Your task to perform on an android device: Open Maps and search for coffee Image 0: 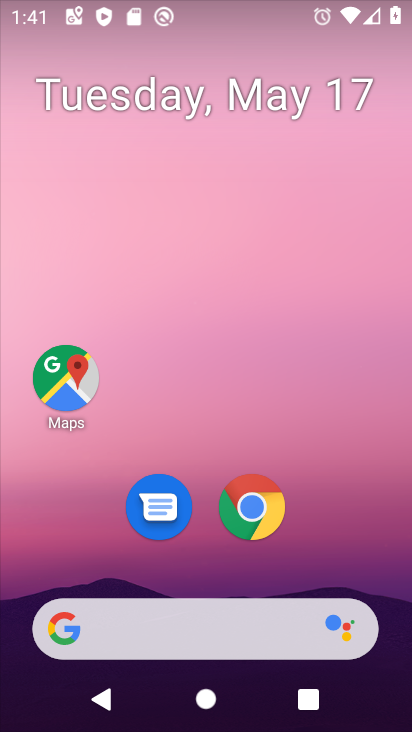
Step 0: drag from (306, 463) to (324, 198)
Your task to perform on an android device: Open Maps and search for coffee Image 1: 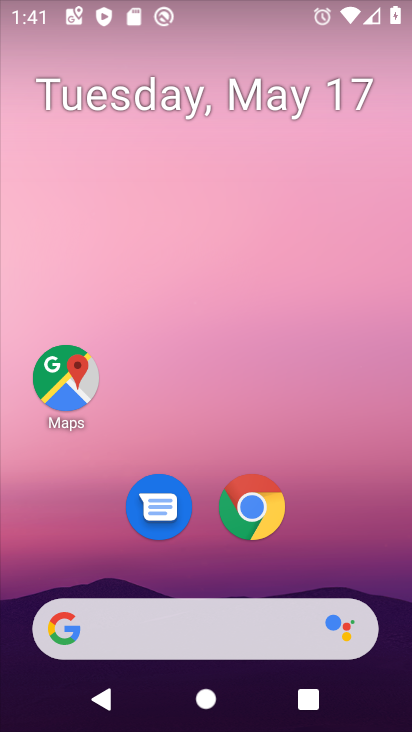
Step 1: click (69, 354)
Your task to perform on an android device: Open Maps and search for coffee Image 2: 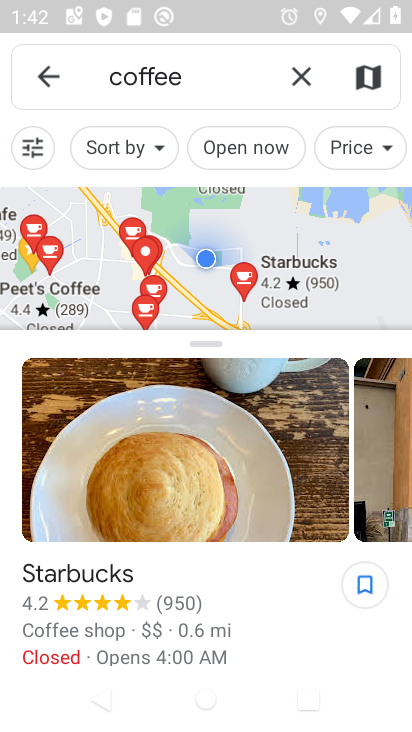
Step 2: task complete